Your task to perform on an android device: toggle sleep mode Image 0: 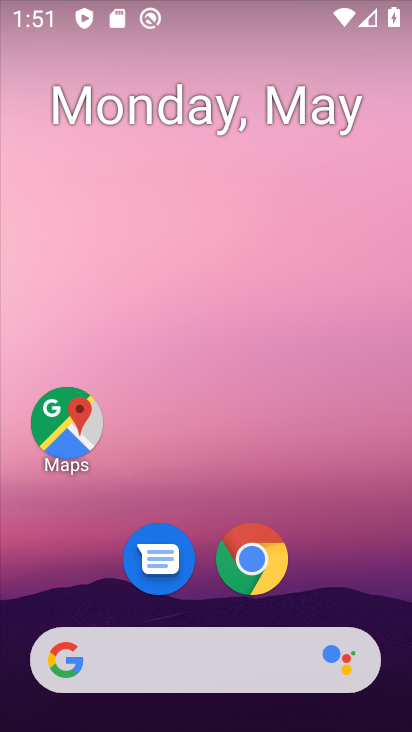
Step 0: drag from (355, 545) to (305, 2)
Your task to perform on an android device: toggle sleep mode Image 1: 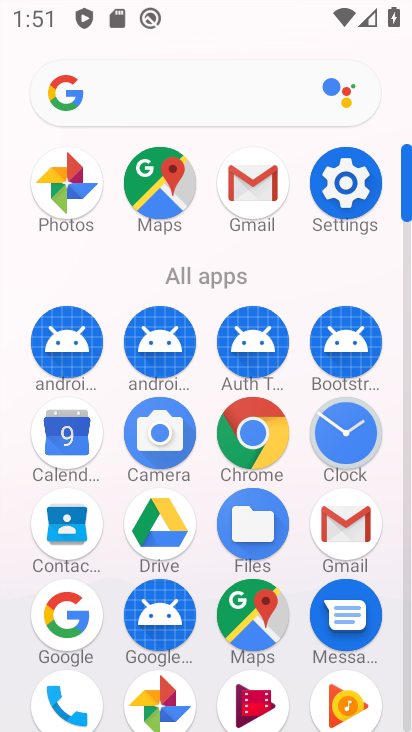
Step 1: click (348, 189)
Your task to perform on an android device: toggle sleep mode Image 2: 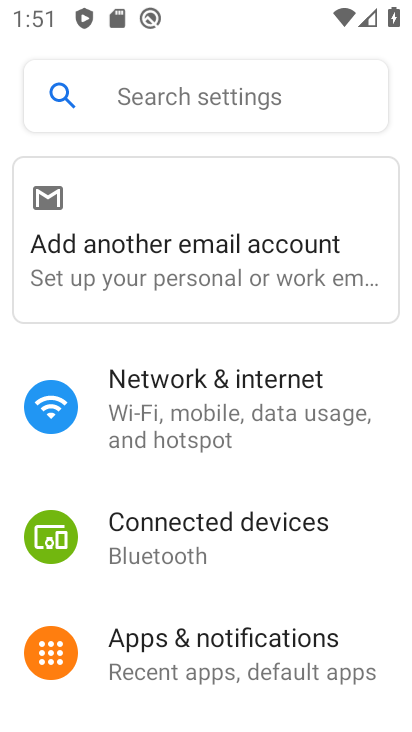
Step 2: drag from (291, 603) to (304, 118)
Your task to perform on an android device: toggle sleep mode Image 3: 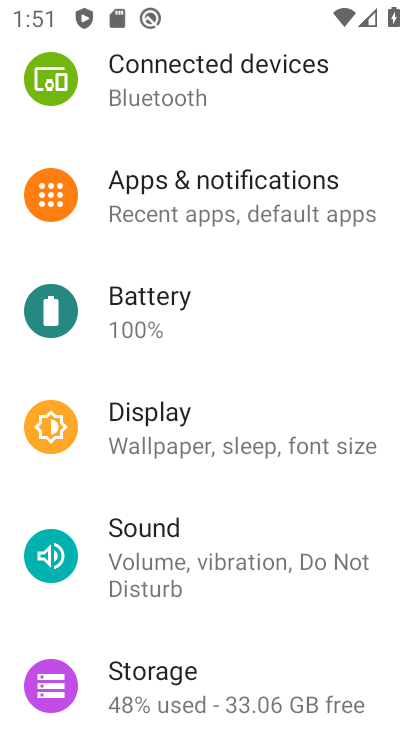
Step 3: click (174, 448)
Your task to perform on an android device: toggle sleep mode Image 4: 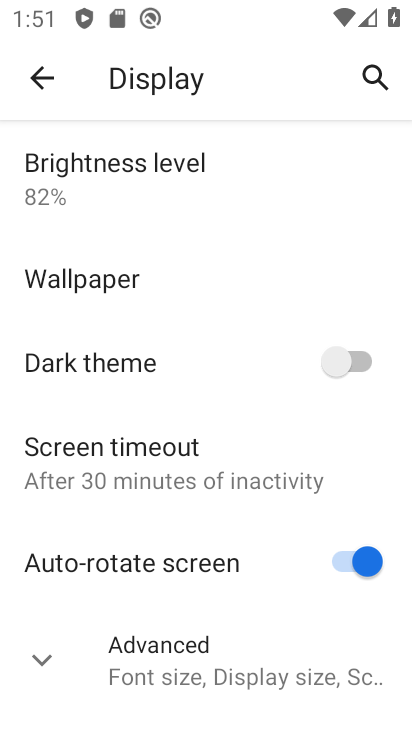
Step 4: click (43, 666)
Your task to perform on an android device: toggle sleep mode Image 5: 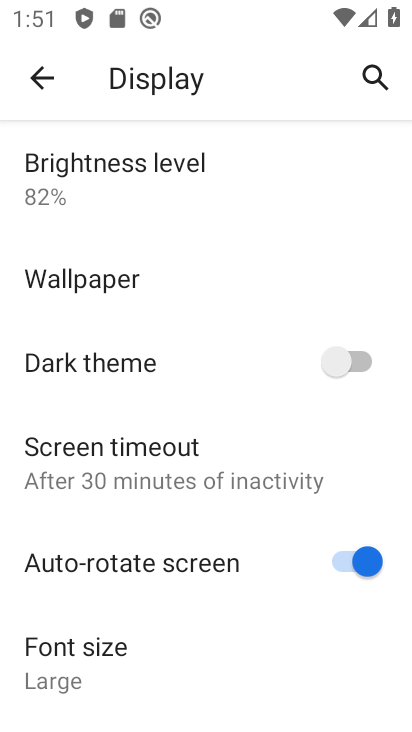
Step 5: task complete